Your task to perform on an android device: toggle show notifications on the lock screen Image 0: 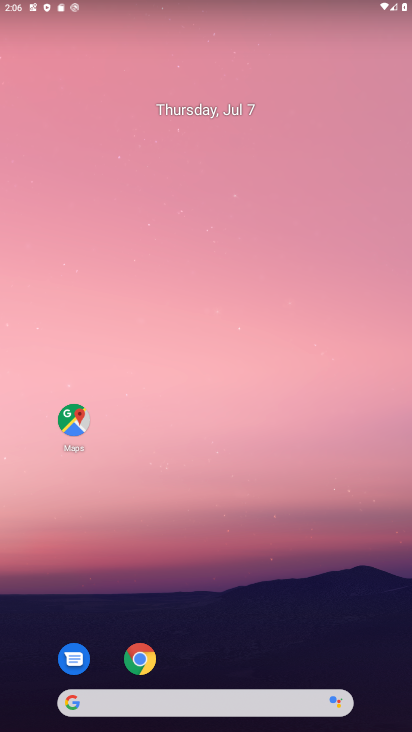
Step 0: click (141, 653)
Your task to perform on an android device: toggle show notifications on the lock screen Image 1: 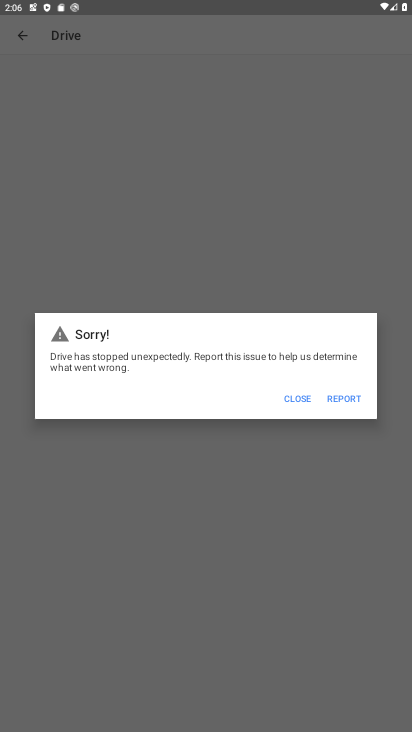
Step 1: click (308, 397)
Your task to perform on an android device: toggle show notifications on the lock screen Image 2: 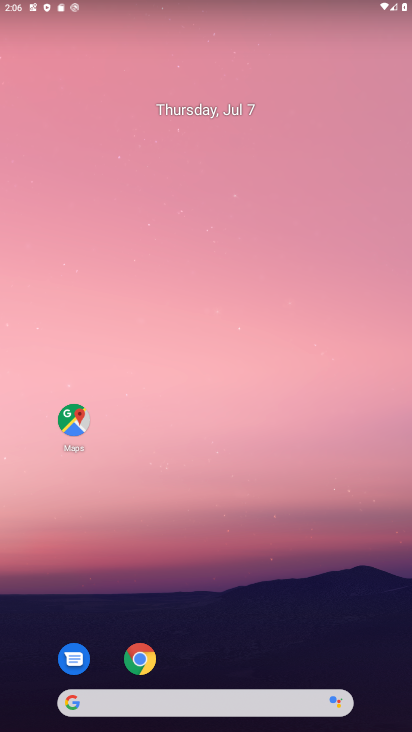
Step 2: drag from (253, 609) to (254, 63)
Your task to perform on an android device: toggle show notifications on the lock screen Image 3: 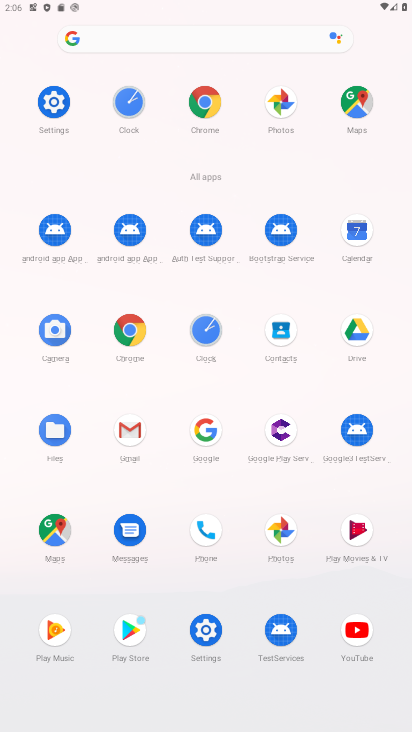
Step 3: click (53, 111)
Your task to perform on an android device: toggle show notifications on the lock screen Image 4: 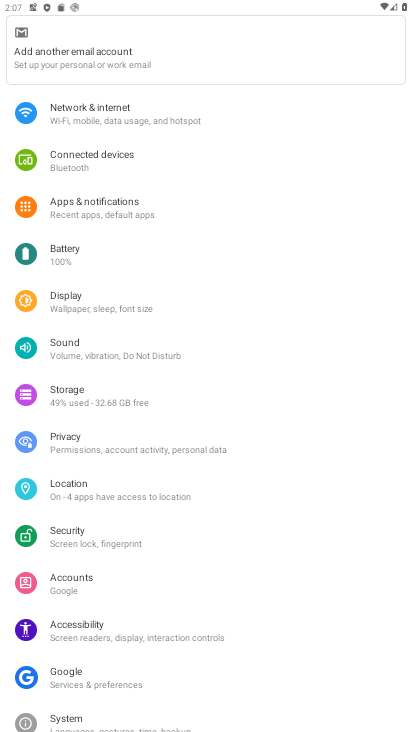
Step 4: click (100, 207)
Your task to perform on an android device: toggle show notifications on the lock screen Image 5: 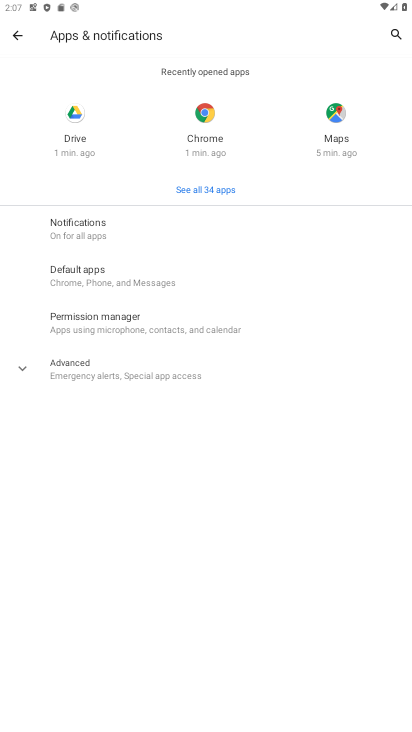
Step 5: click (101, 220)
Your task to perform on an android device: toggle show notifications on the lock screen Image 6: 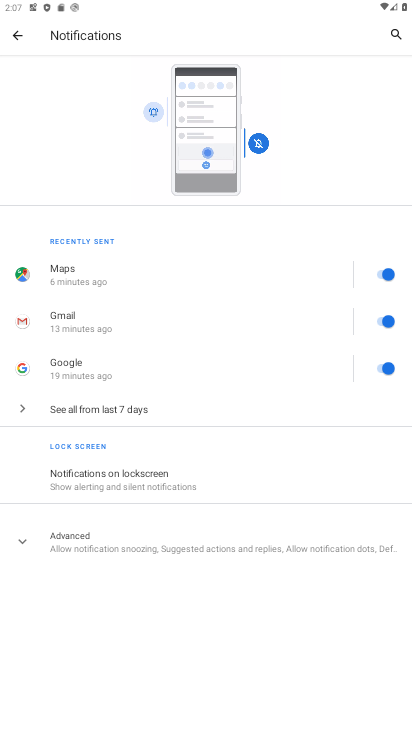
Step 6: click (319, 477)
Your task to perform on an android device: toggle show notifications on the lock screen Image 7: 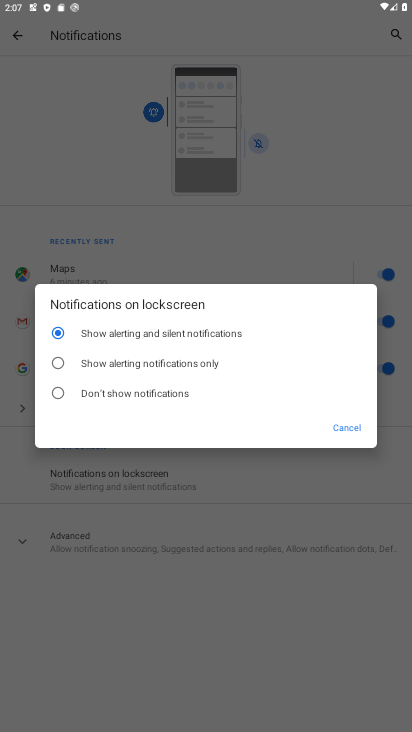
Step 7: click (87, 394)
Your task to perform on an android device: toggle show notifications on the lock screen Image 8: 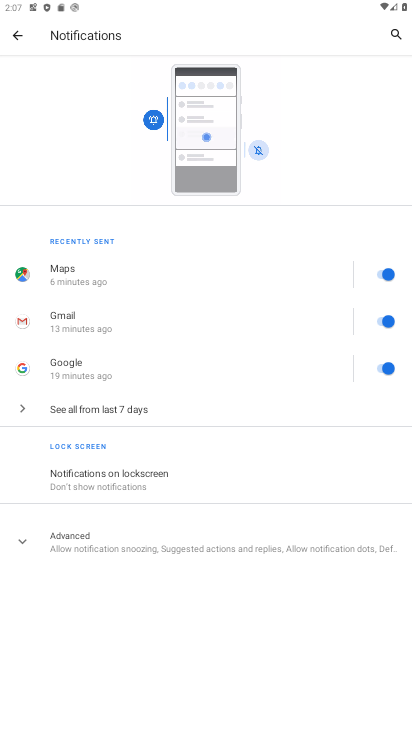
Step 8: task complete